Your task to perform on an android device: snooze an email in the gmail app Image 0: 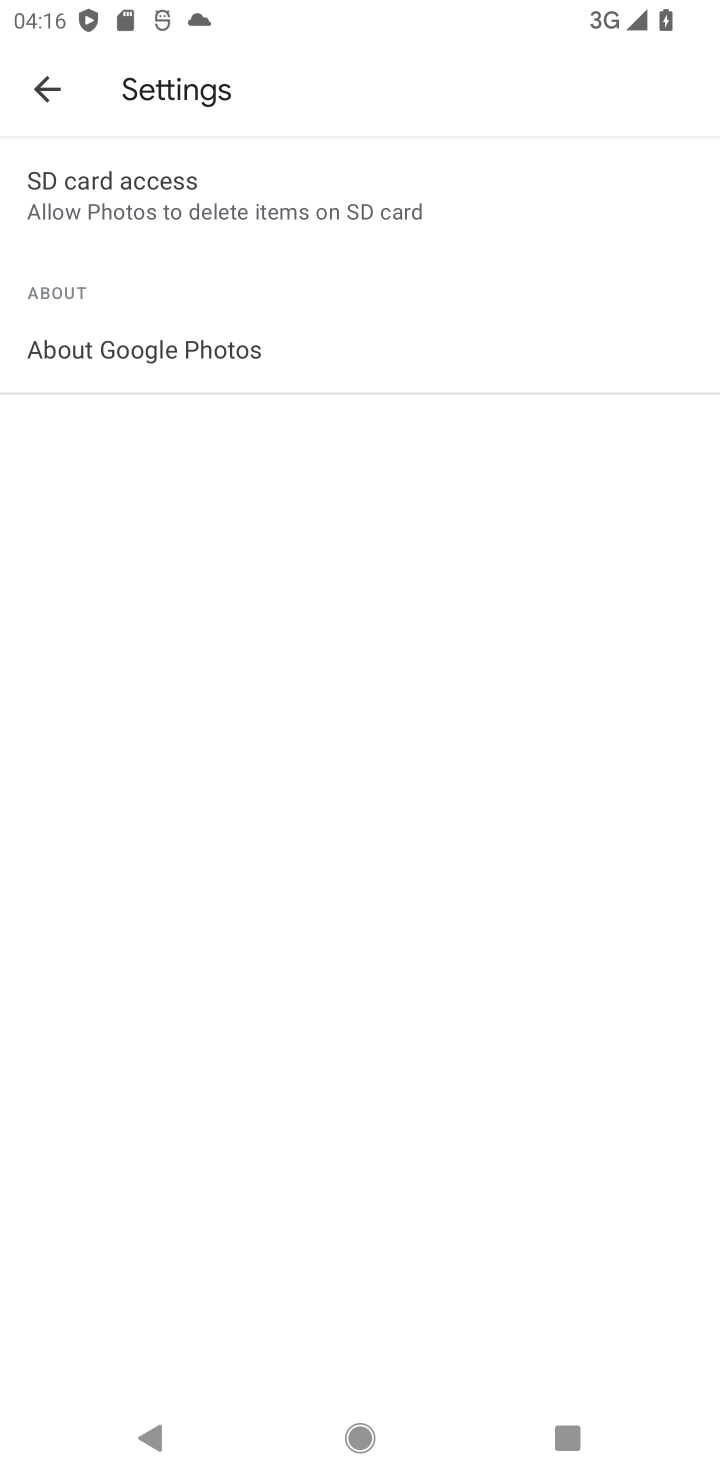
Step 0: press home button
Your task to perform on an android device: snooze an email in the gmail app Image 1: 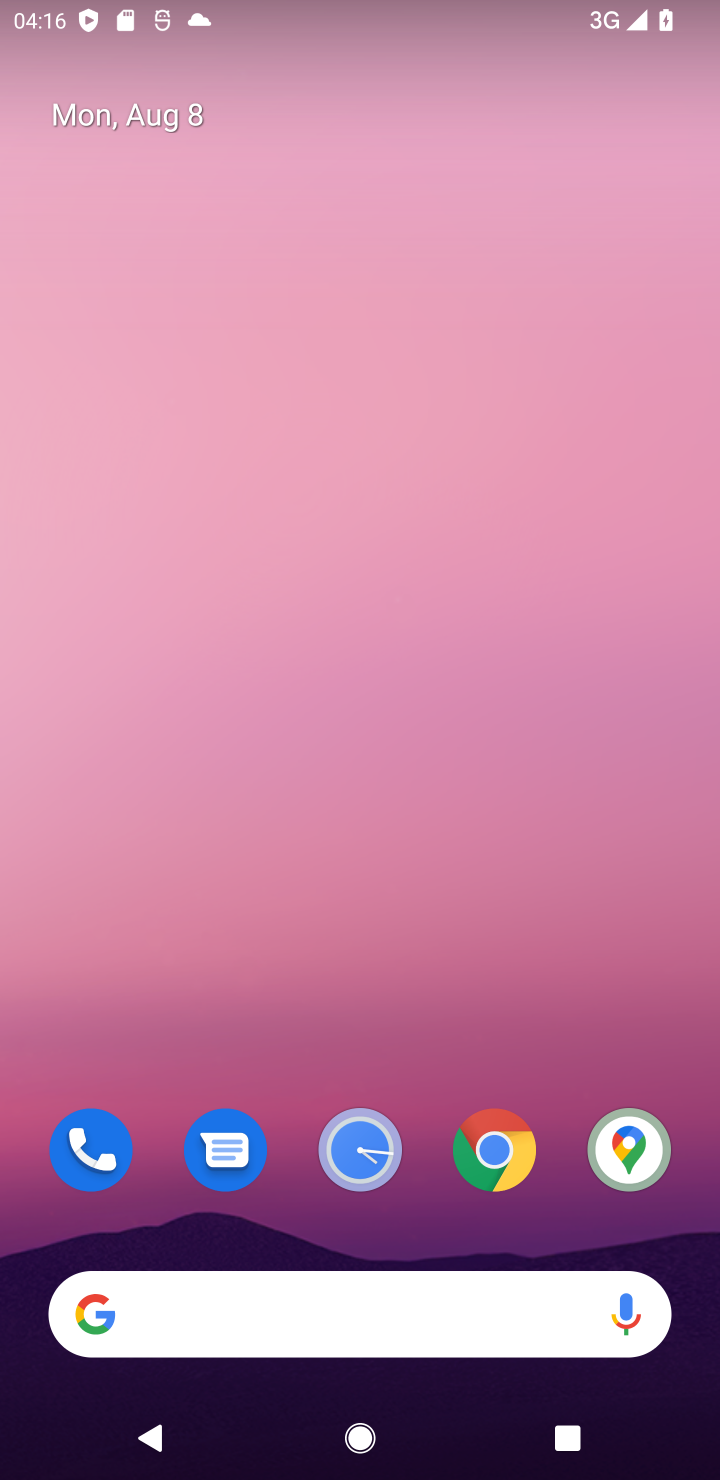
Step 1: drag from (68, 1410) to (422, 614)
Your task to perform on an android device: snooze an email in the gmail app Image 2: 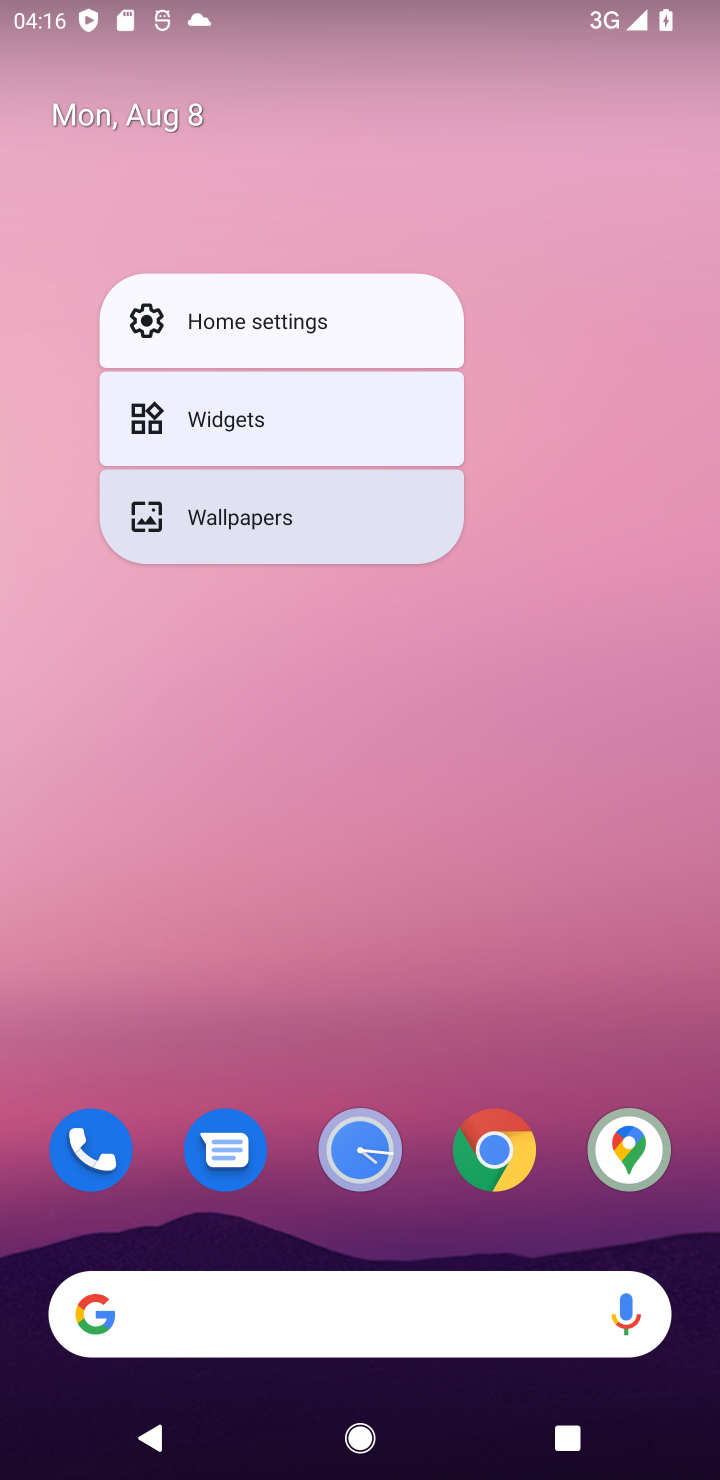
Step 2: drag from (13, 1397) to (281, 908)
Your task to perform on an android device: snooze an email in the gmail app Image 3: 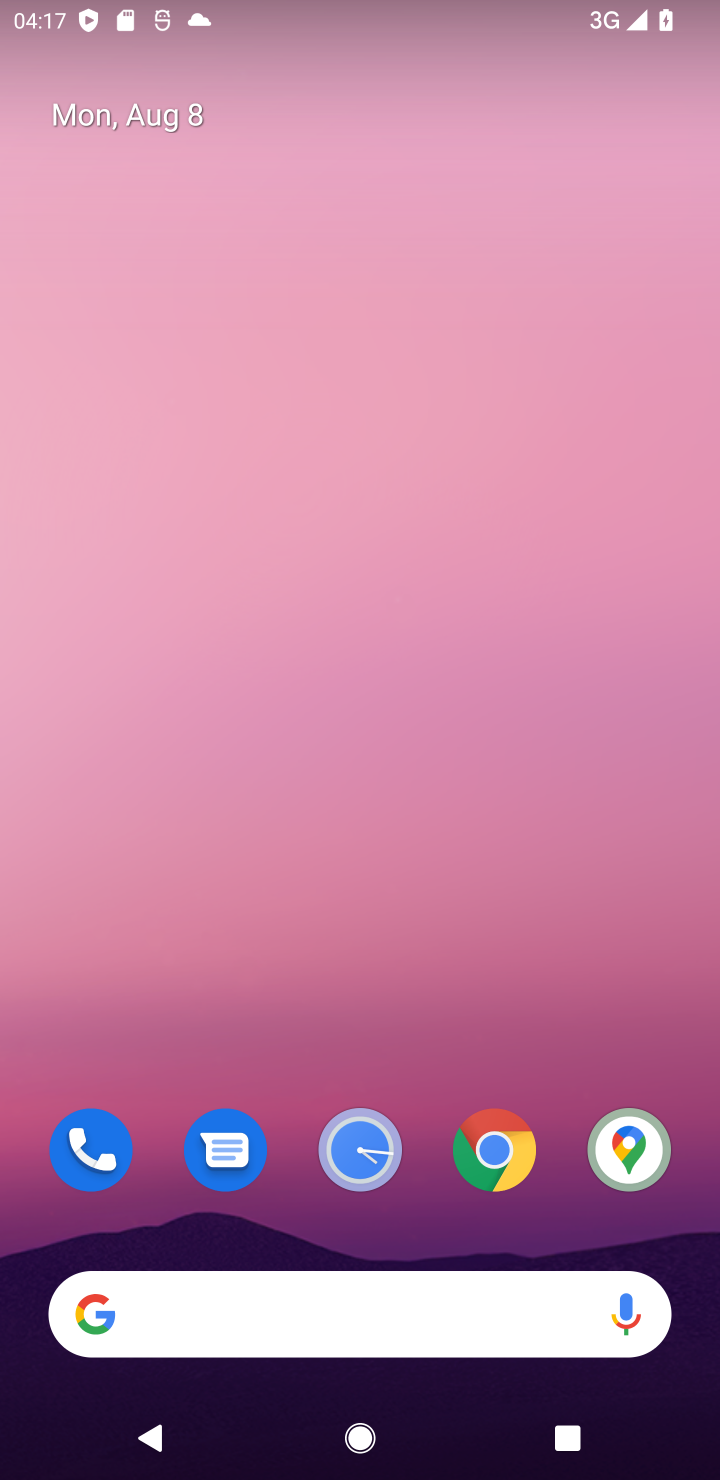
Step 3: drag from (114, 1390) to (353, 501)
Your task to perform on an android device: snooze an email in the gmail app Image 4: 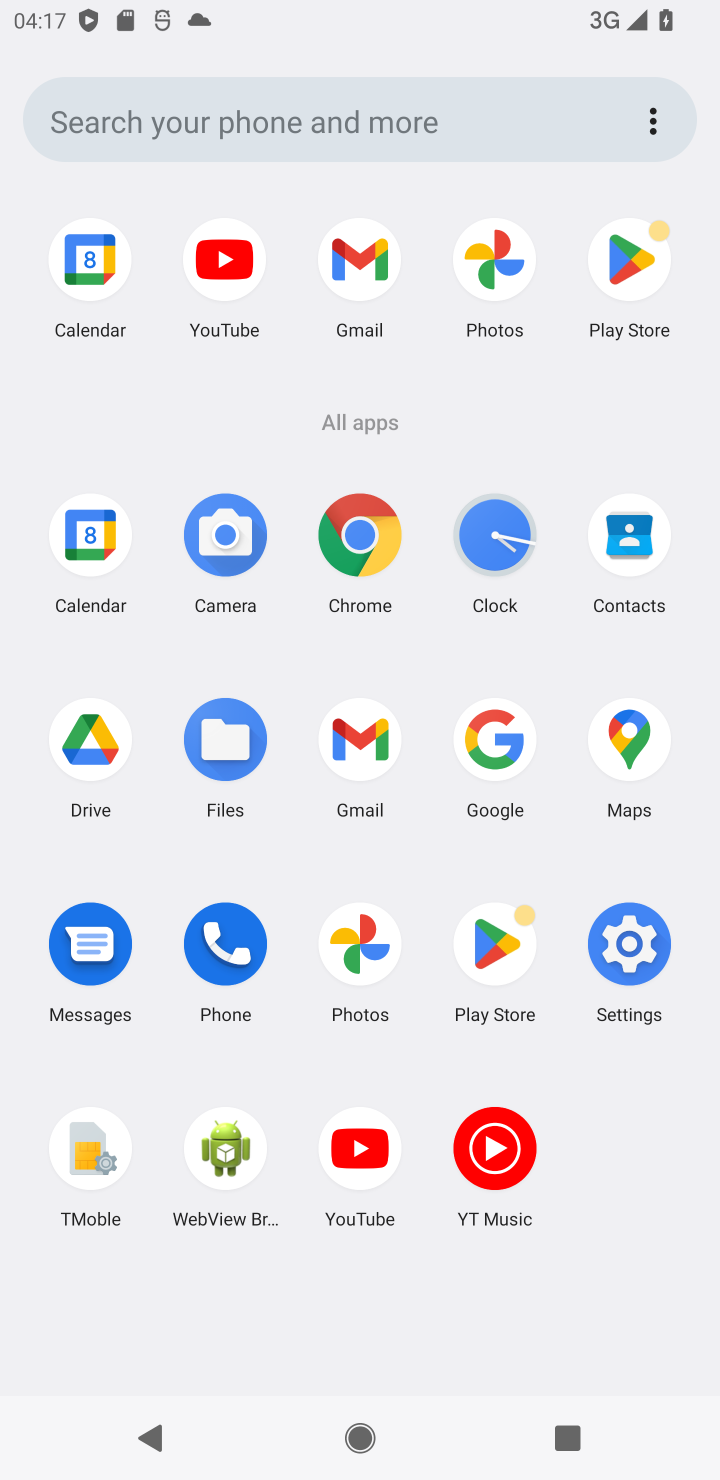
Step 4: click (375, 753)
Your task to perform on an android device: snooze an email in the gmail app Image 5: 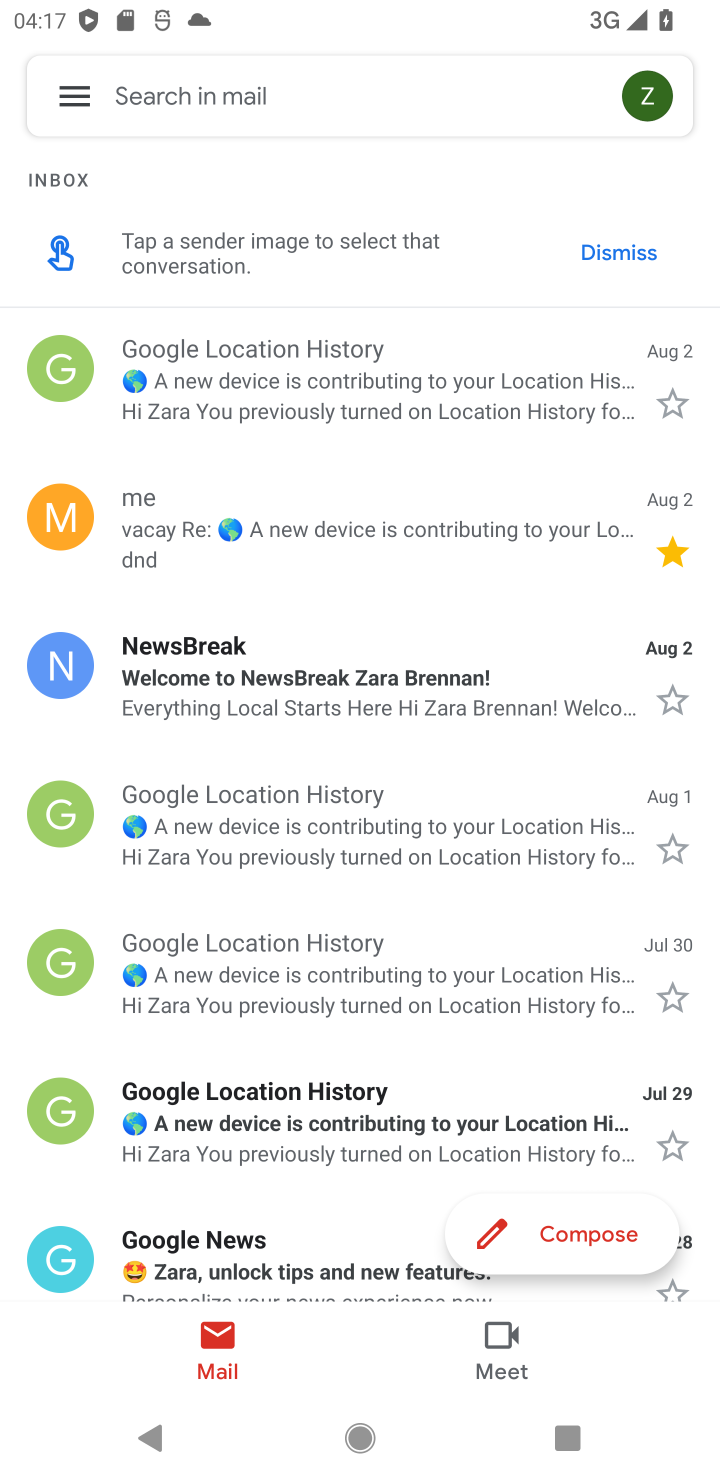
Step 5: click (80, 109)
Your task to perform on an android device: snooze an email in the gmail app Image 6: 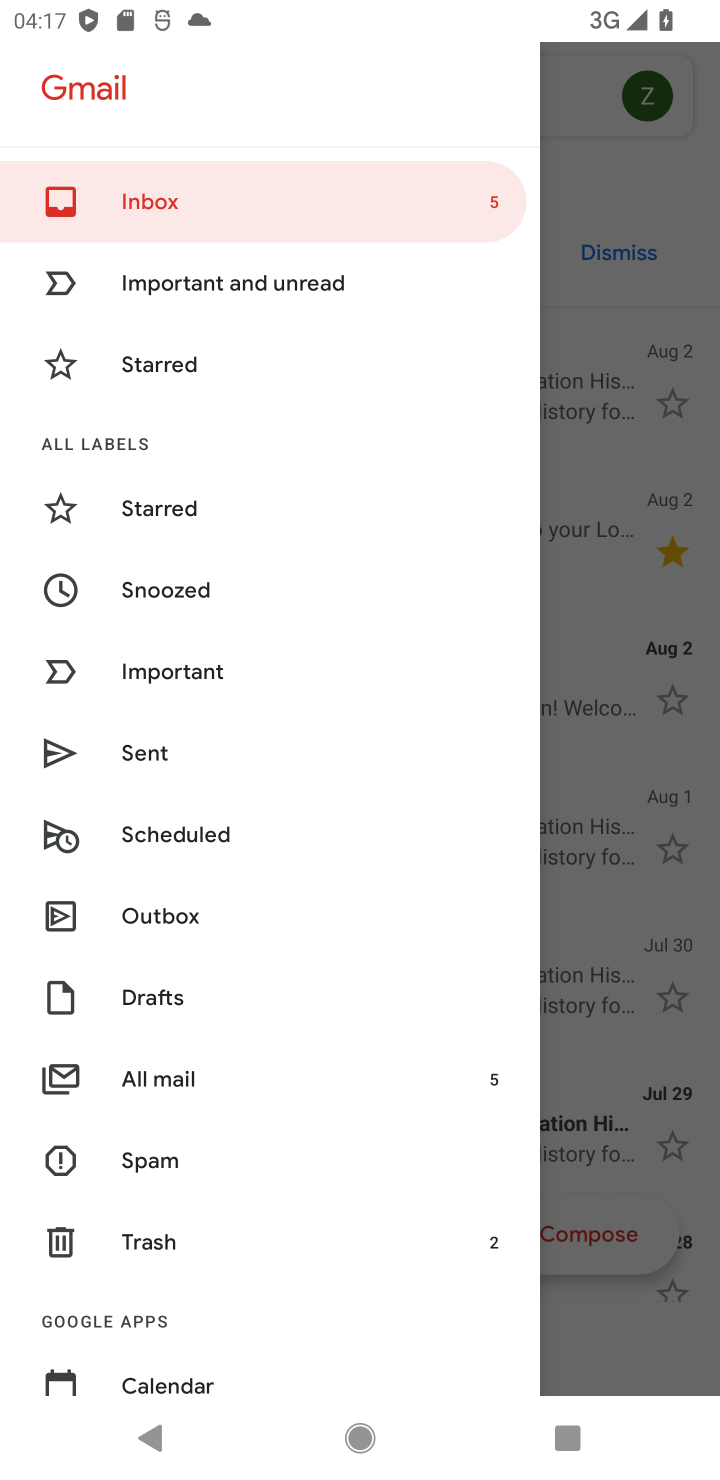
Step 6: click (139, 589)
Your task to perform on an android device: snooze an email in the gmail app Image 7: 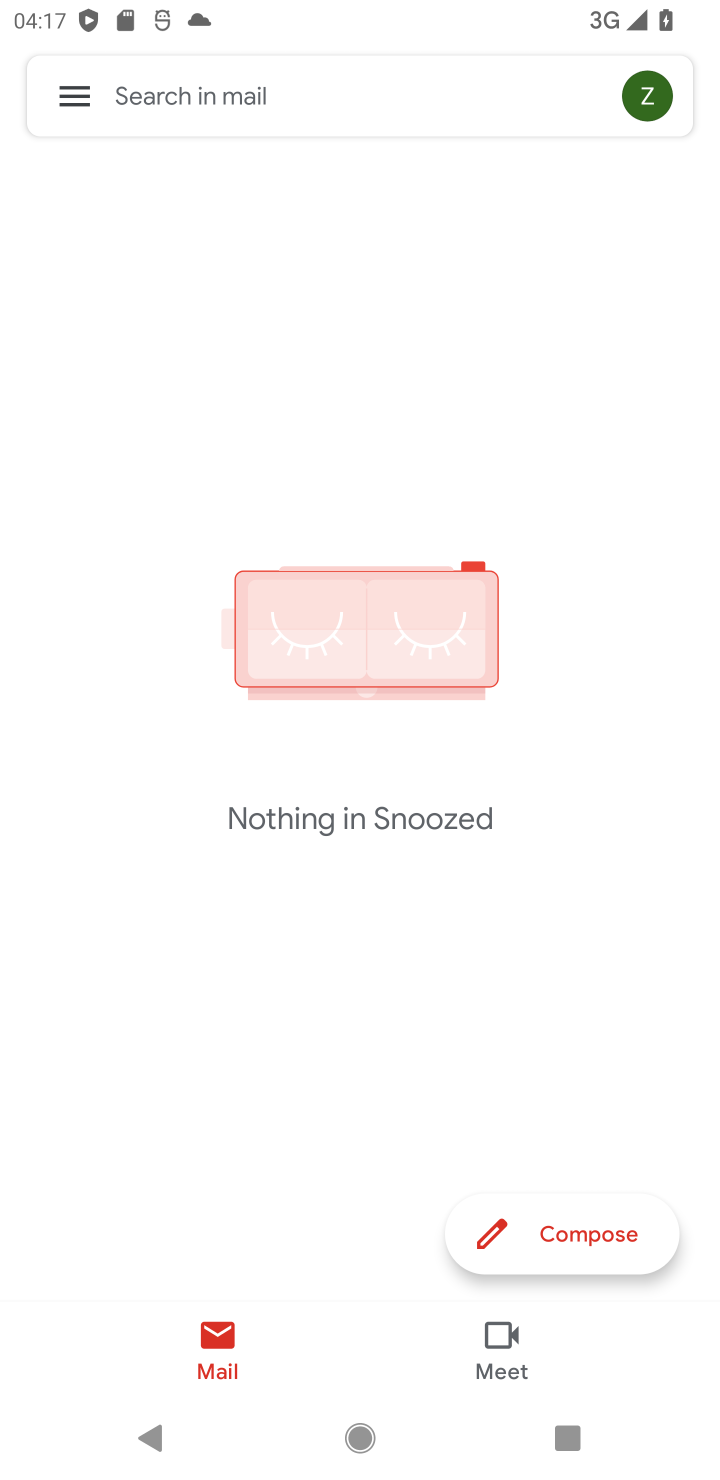
Step 7: task complete